Your task to perform on an android device: show emergency info Image 0: 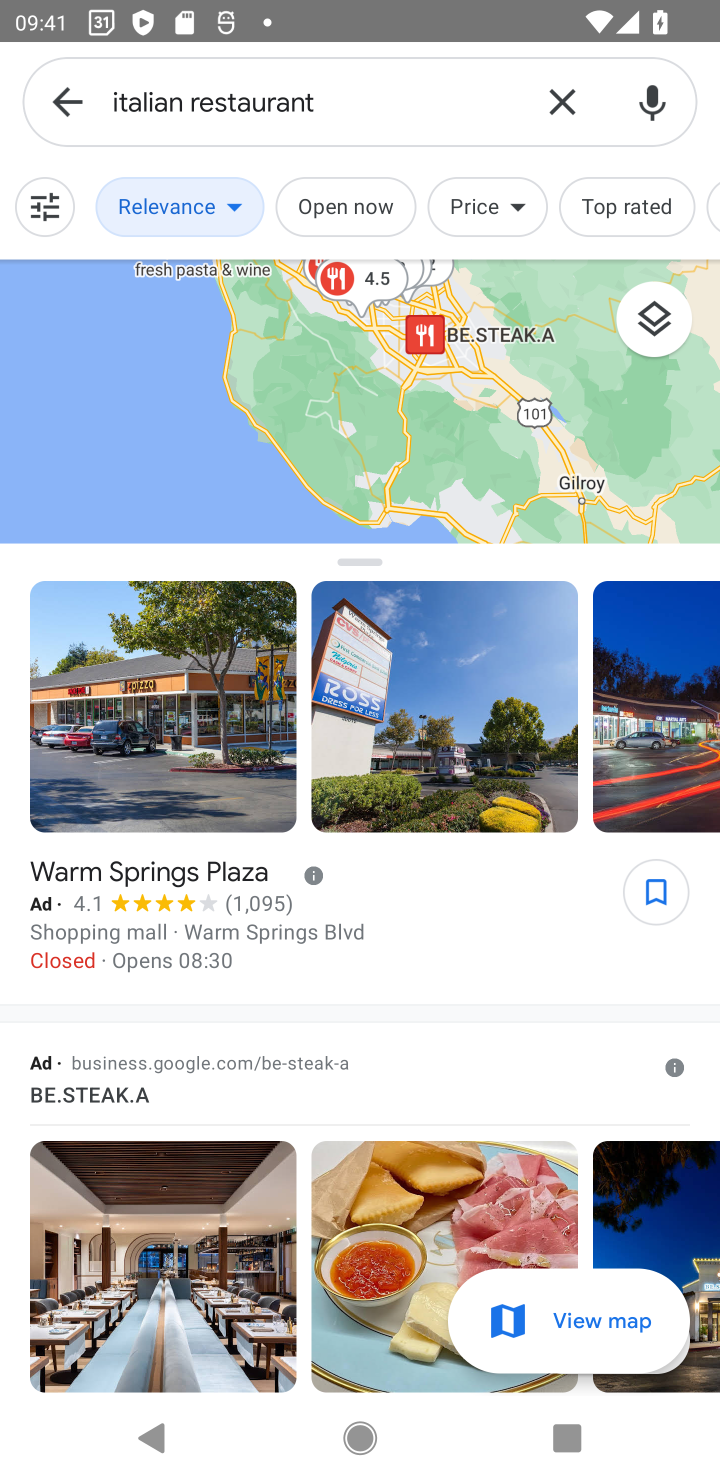
Step 0: press home button
Your task to perform on an android device: show emergency info Image 1: 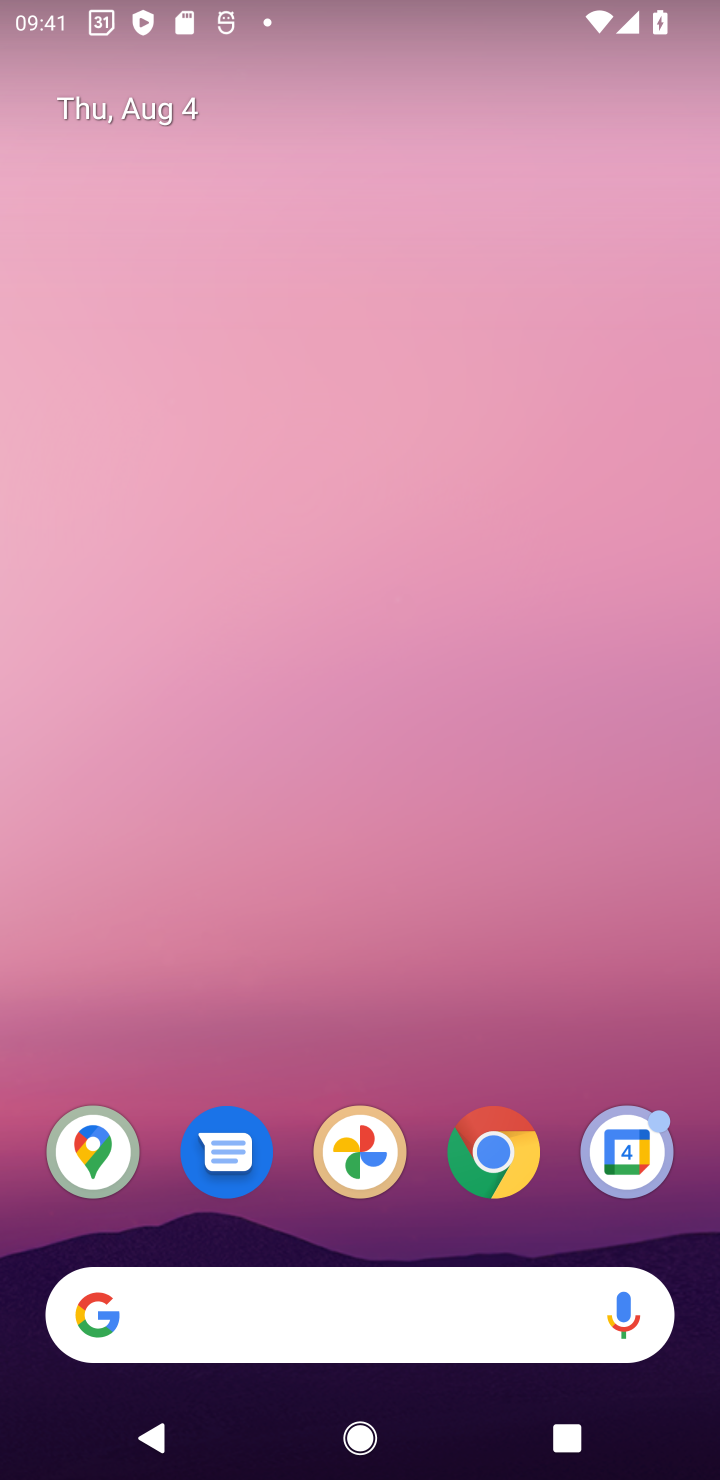
Step 1: drag from (44, 907) to (344, 87)
Your task to perform on an android device: show emergency info Image 2: 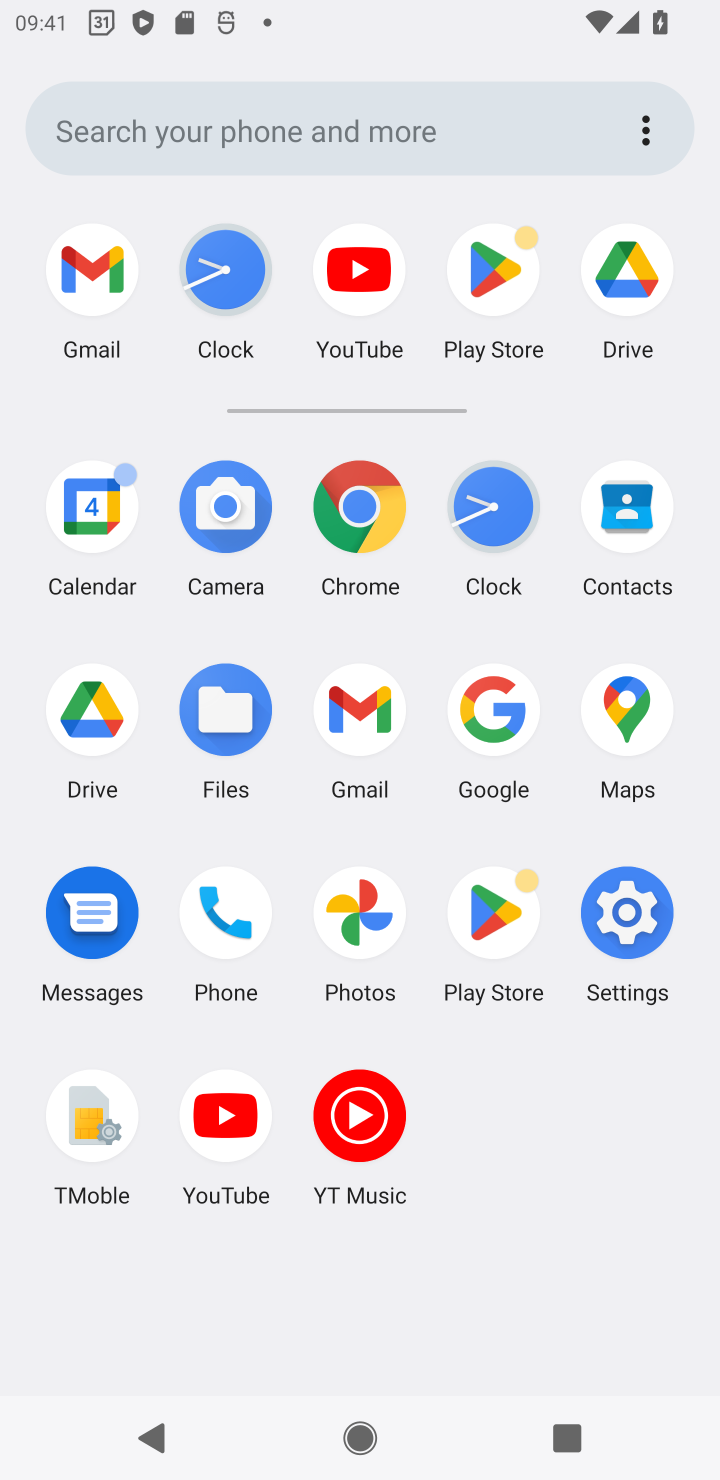
Step 2: click (616, 915)
Your task to perform on an android device: show emergency info Image 3: 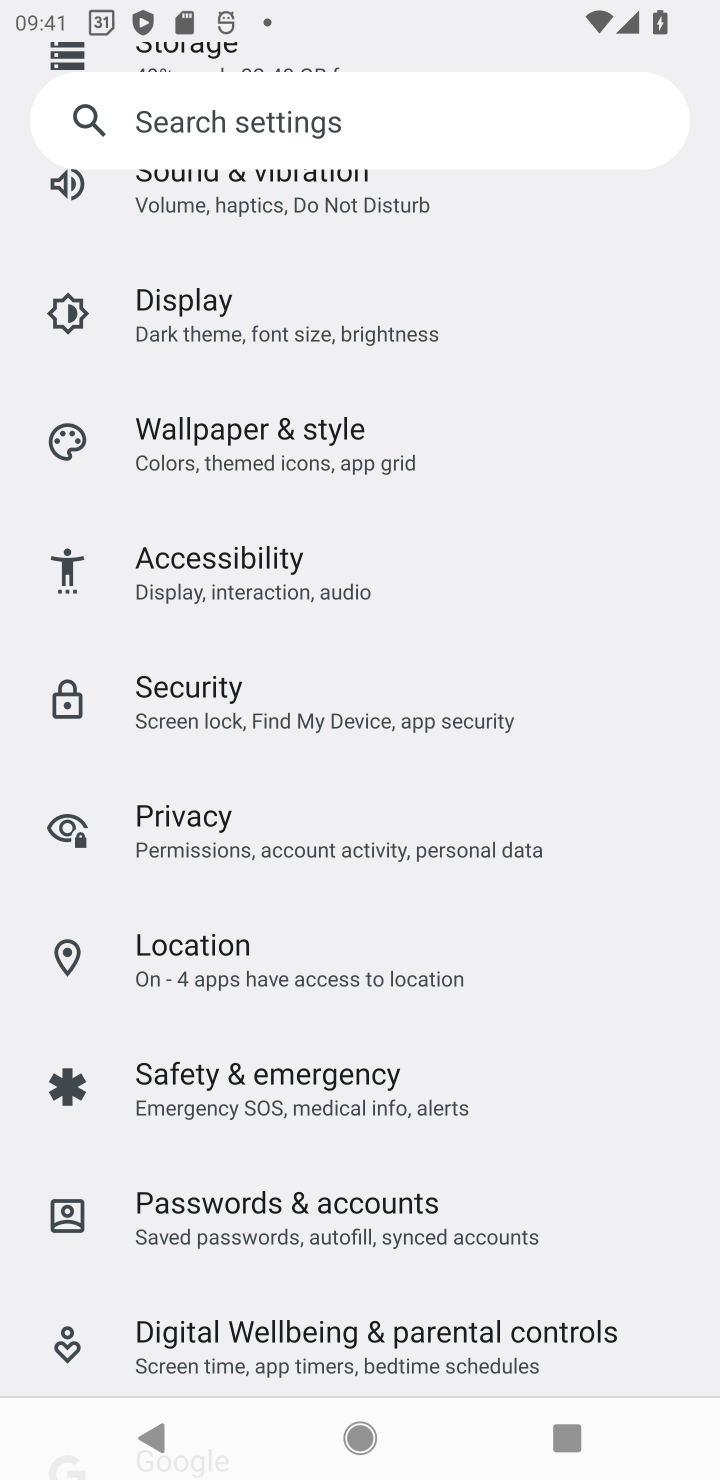
Step 3: drag from (39, 1044) to (235, 106)
Your task to perform on an android device: show emergency info Image 4: 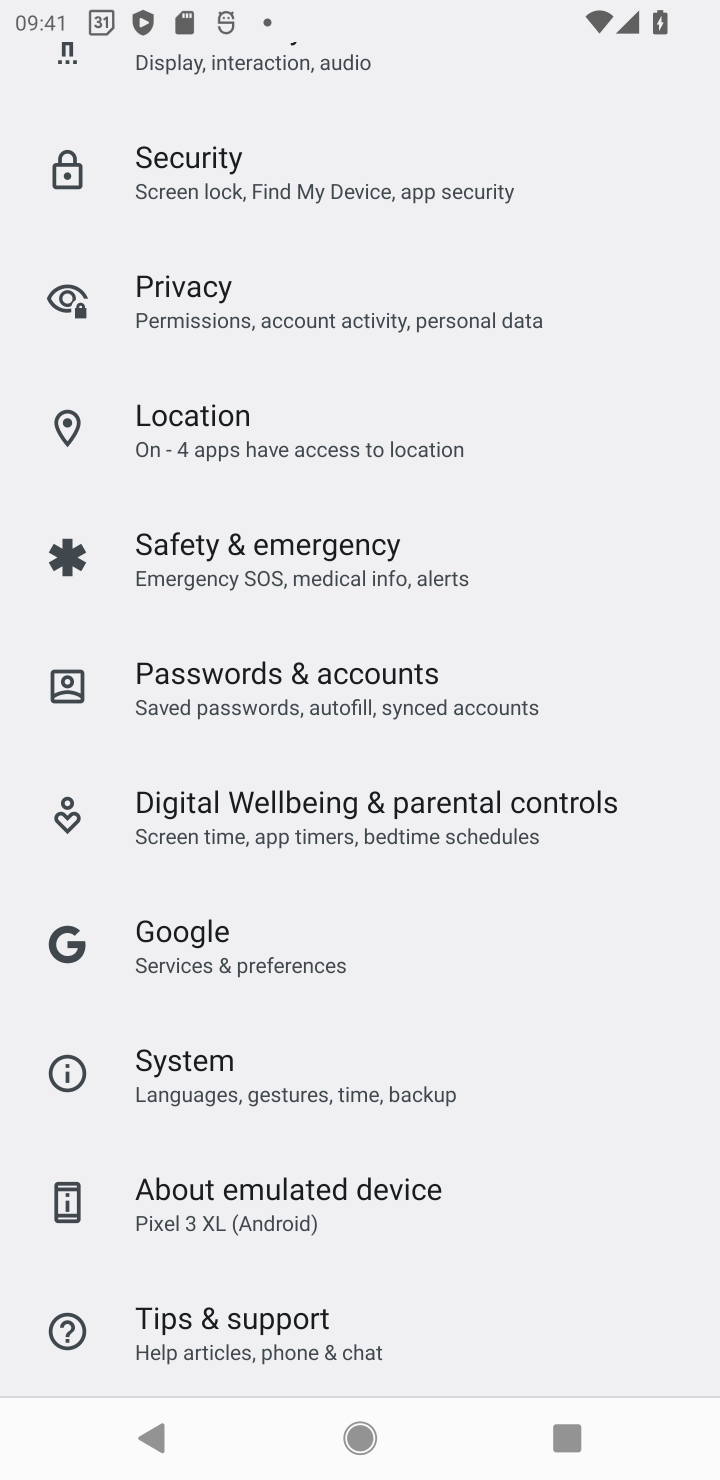
Step 4: drag from (106, 941) to (438, 202)
Your task to perform on an android device: show emergency info Image 5: 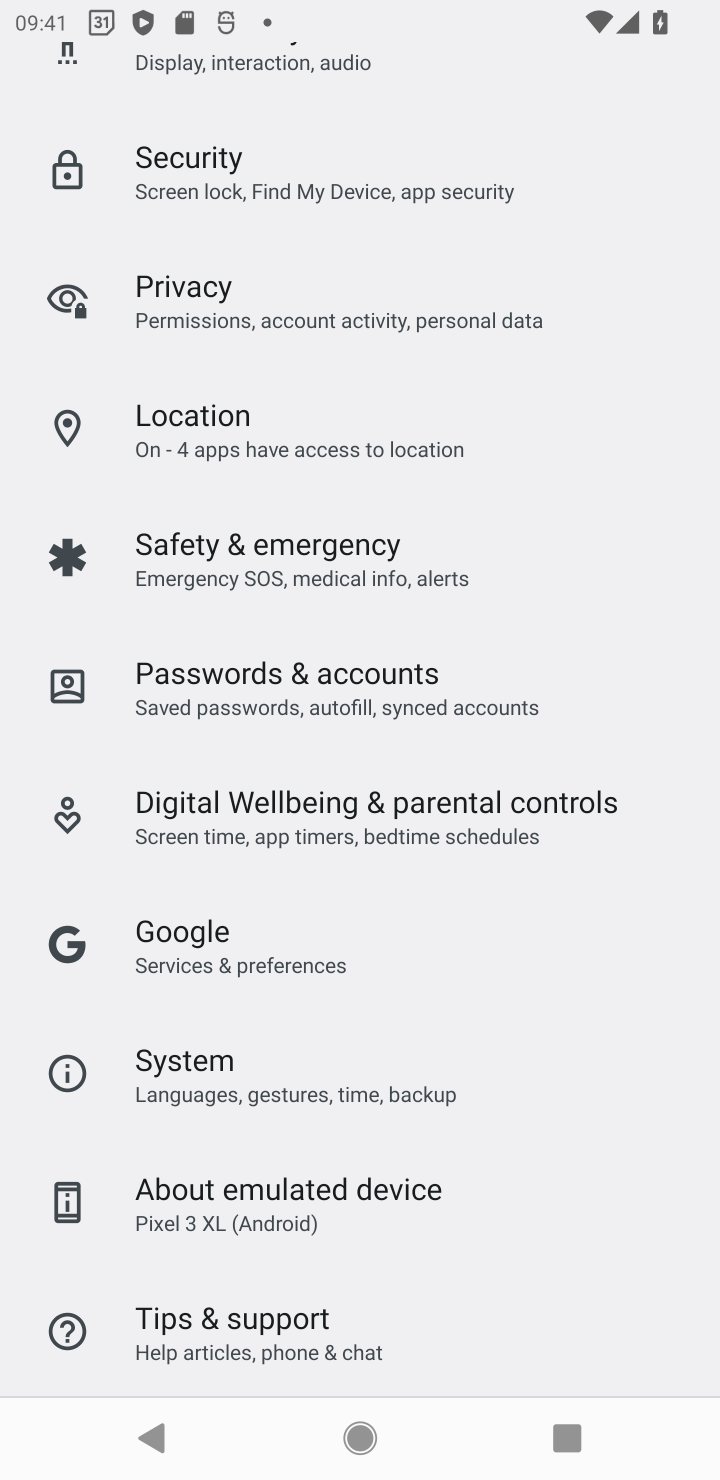
Step 5: drag from (169, 889) to (410, 334)
Your task to perform on an android device: show emergency info Image 6: 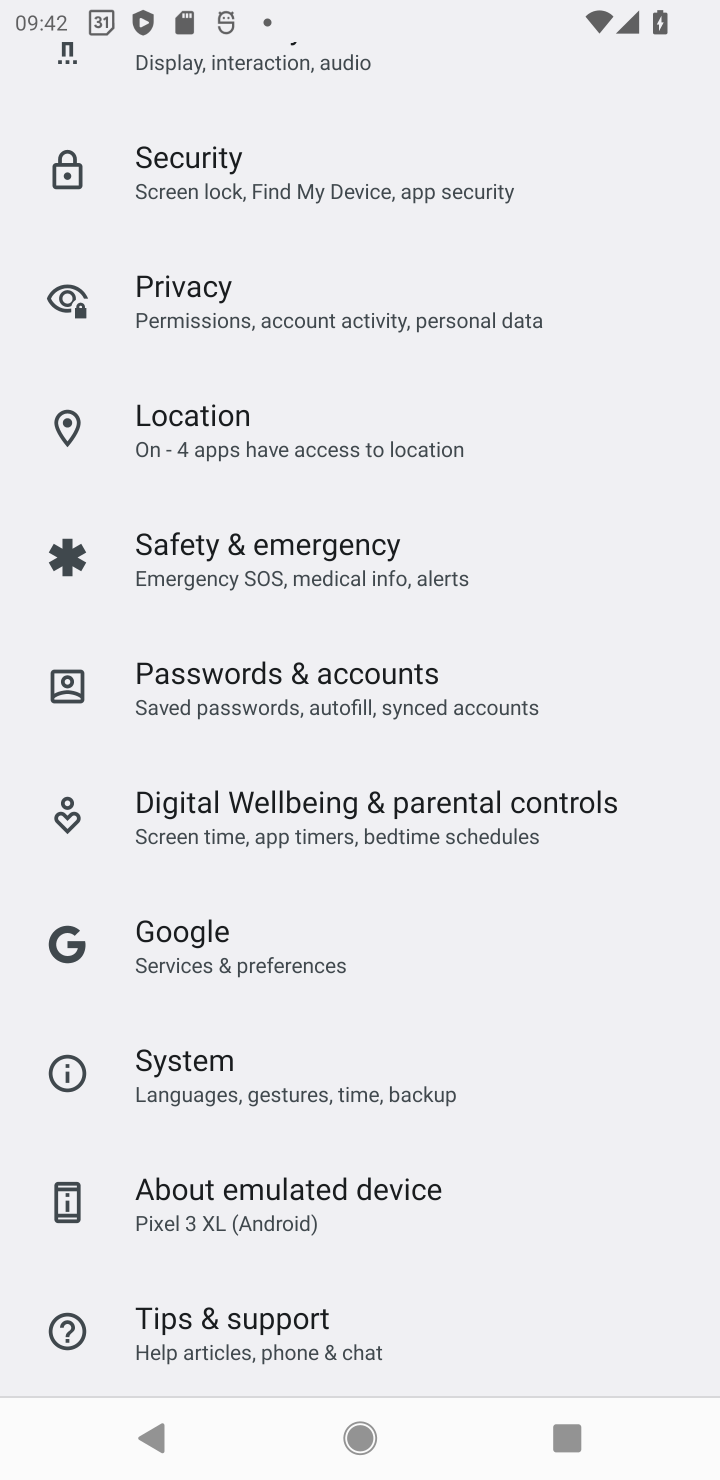
Step 6: click (258, 1219)
Your task to perform on an android device: show emergency info Image 7: 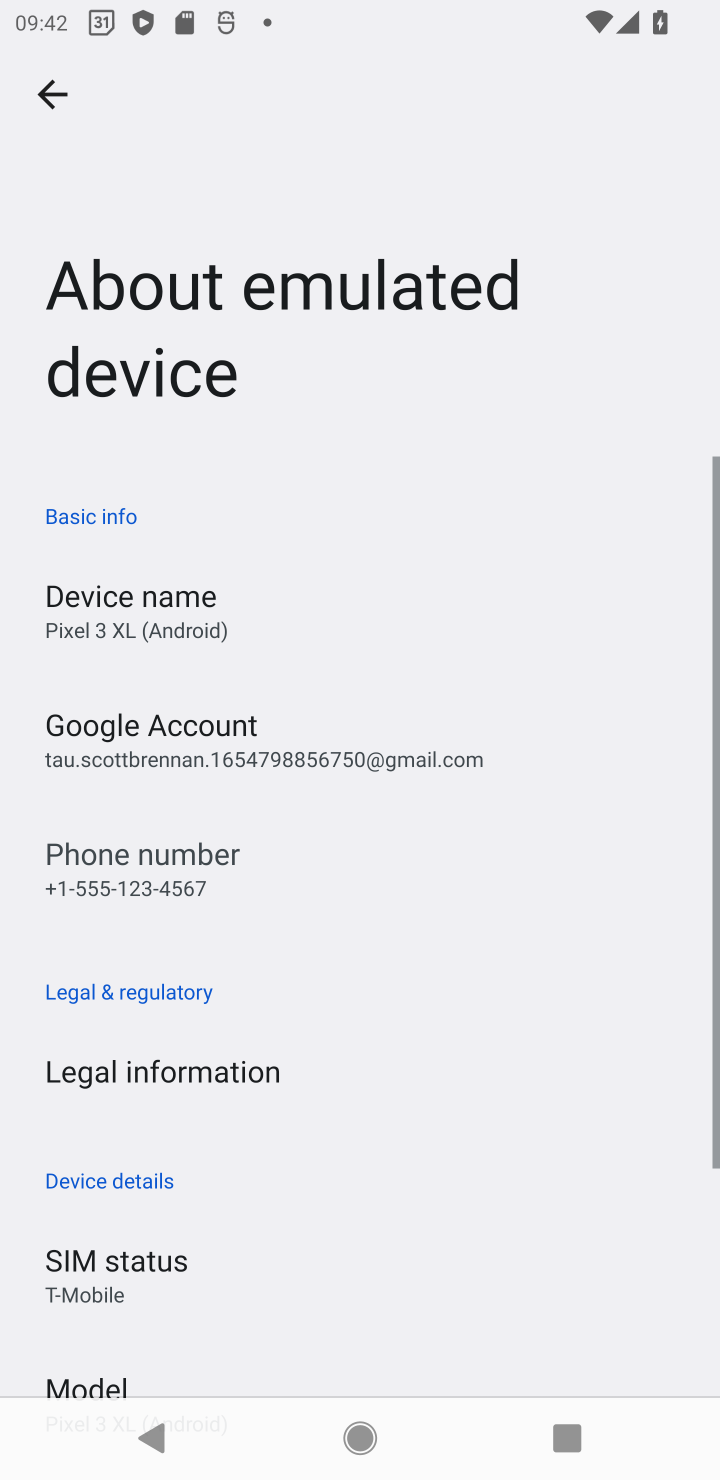
Step 7: task complete